Your task to perform on an android device: What's the weather? Image 0: 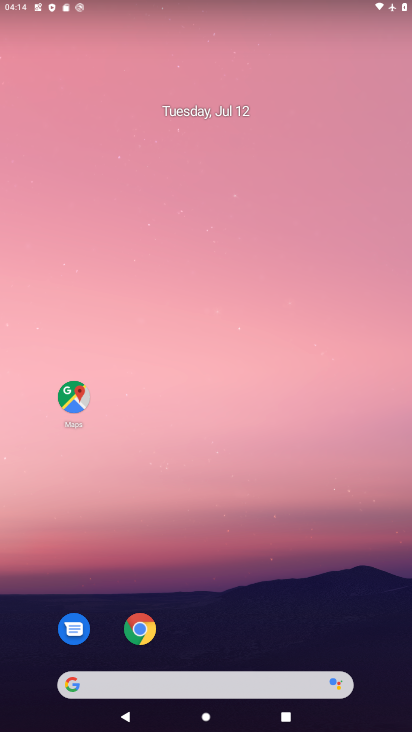
Step 0: drag from (275, 530) to (226, 93)
Your task to perform on an android device: What's the weather? Image 1: 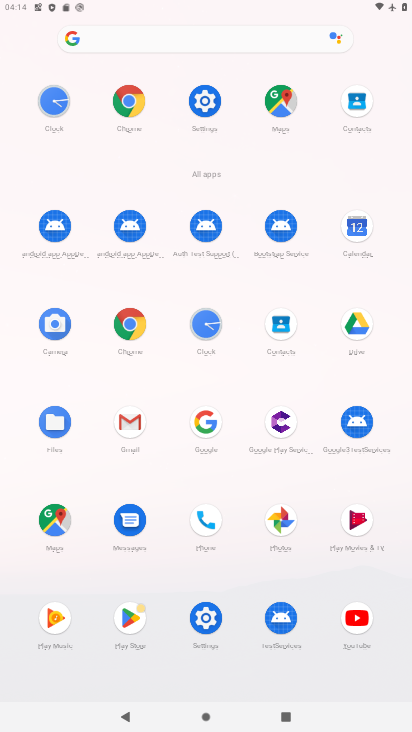
Step 1: click (123, 98)
Your task to perform on an android device: What's the weather? Image 2: 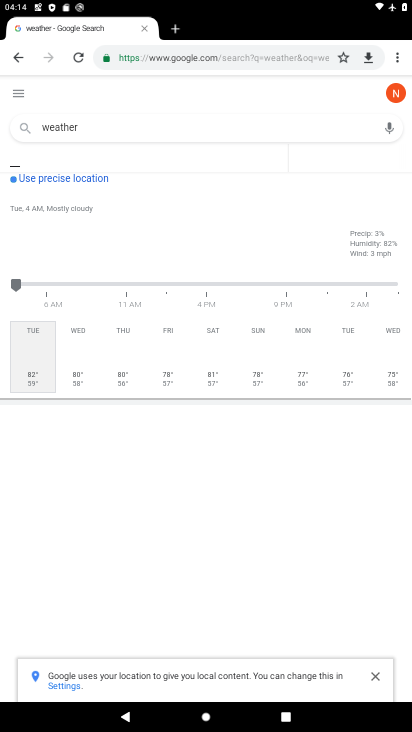
Step 2: click (199, 59)
Your task to perform on an android device: What's the weather? Image 3: 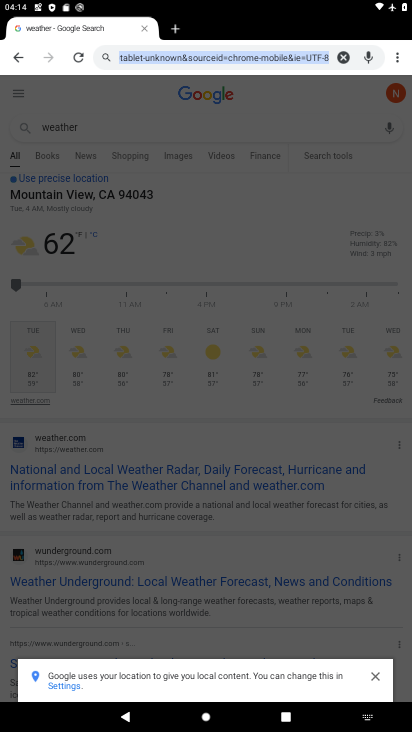
Step 3: click (191, 404)
Your task to perform on an android device: What's the weather? Image 4: 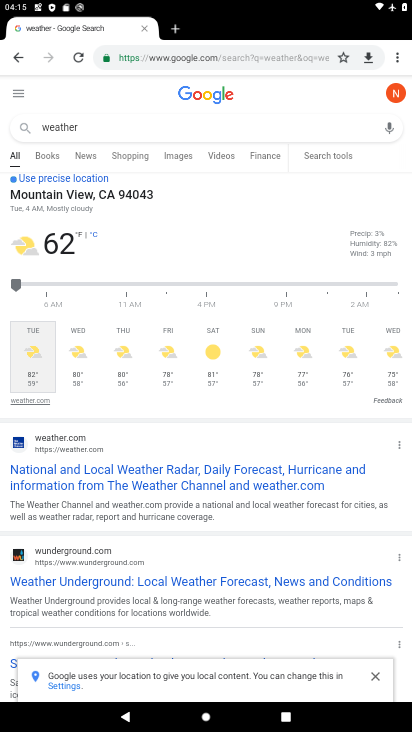
Step 4: task complete